Your task to perform on an android device: open app "Reddit" (install if not already installed) Image 0: 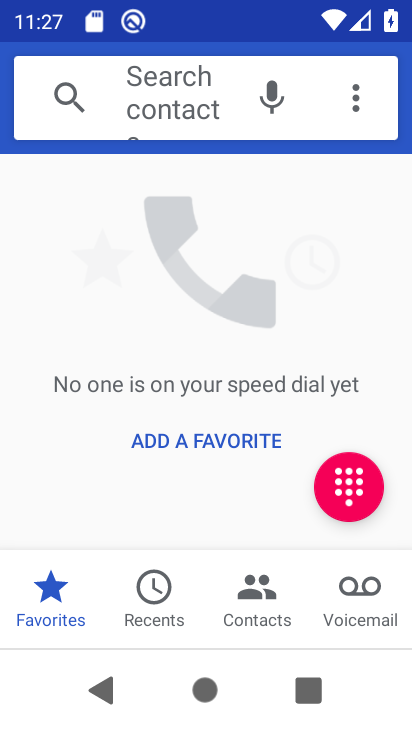
Step 0: press home button
Your task to perform on an android device: open app "Reddit" (install if not already installed) Image 1: 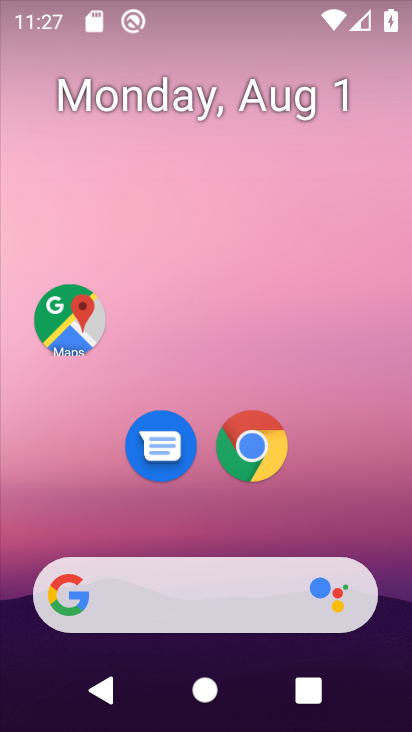
Step 1: drag from (185, 526) to (210, 133)
Your task to perform on an android device: open app "Reddit" (install if not already installed) Image 2: 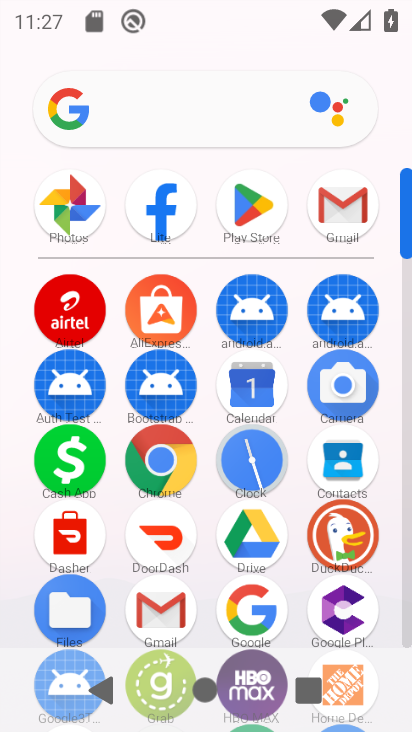
Step 2: click (249, 198)
Your task to perform on an android device: open app "Reddit" (install if not already installed) Image 3: 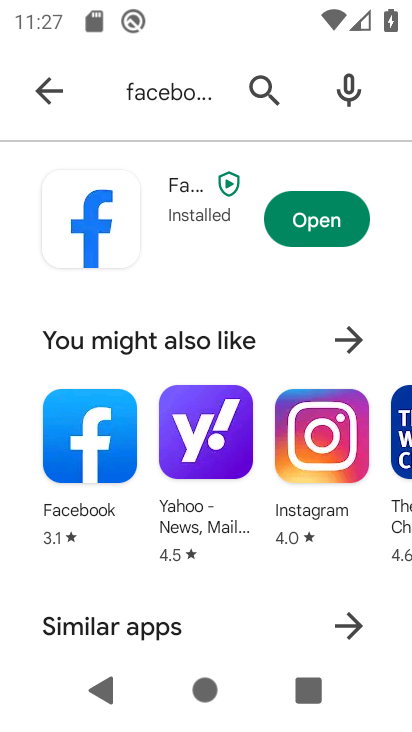
Step 3: click (272, 96)
Your task to perform on an android device: open app "Reddit" (install if not already installed) Image 4: 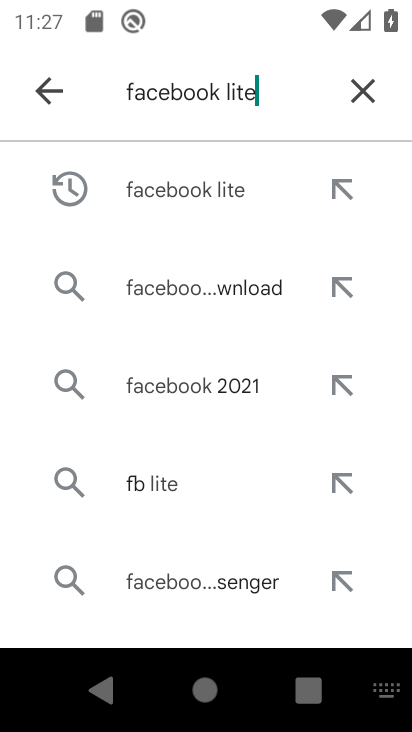
Step 4: click (360, 92)
Your task to perform on an android device: open app "Reddit" (install if not already installed) Image 5: 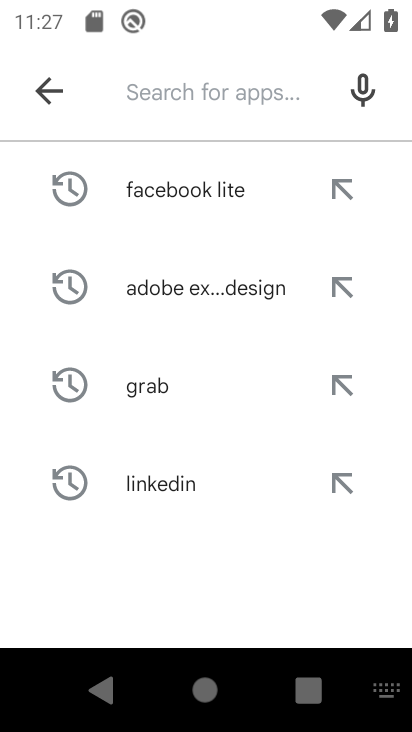
Step 5: type "Reddit"
Your task to perform on an android device: open app "Reddit" (install if not already installed) Image 6: 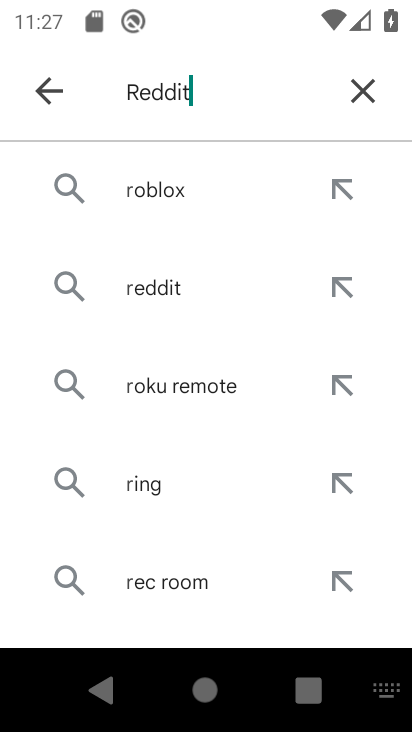
Step 6: type ""
Your task to perform on an android device: open app "Reddit" (install if not already installed) Image 7: 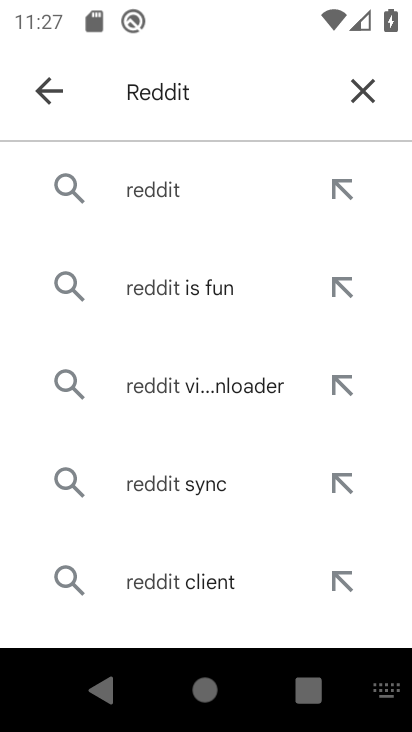
Step 7: click (221, 190)
Your task to perform on an android device: open app "Reddit" (install if not already installed) Image 8: 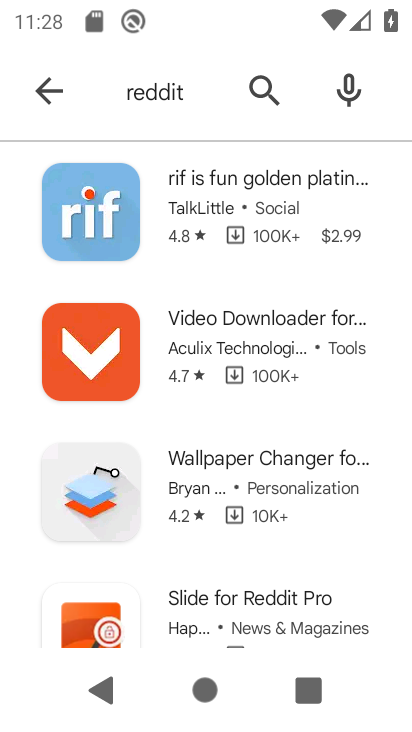
Step 8: task complete